Your task to perform on an android device: turn on the 24-hour format for clock Image 0: 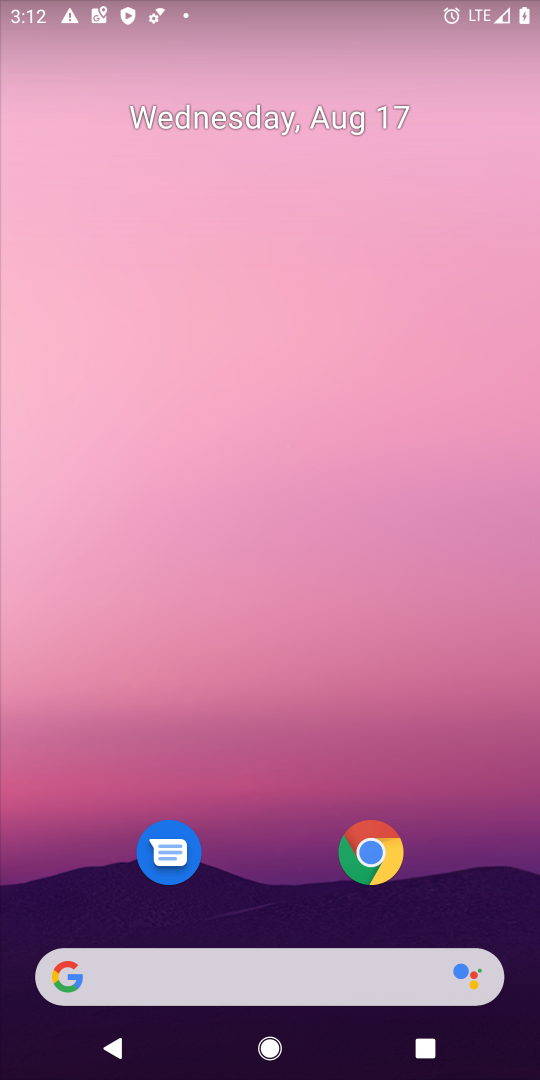
Step 0: drag from (264, 636) to (324, 21)
Your task to perform on an android device: turn on the 24-hour format for clock Image 1: 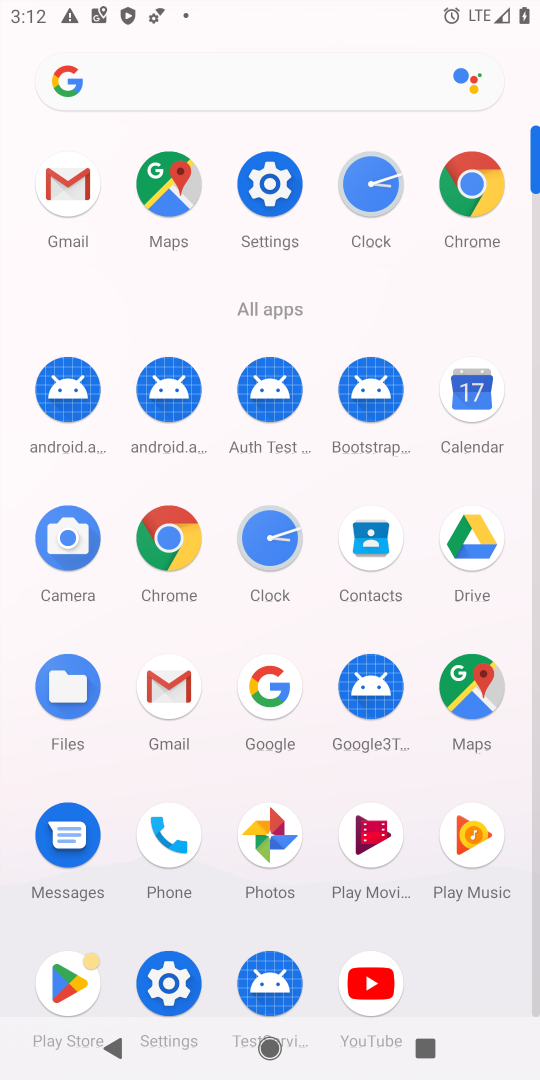
Step 1: click (264, 533)
Your task to perform on an android device: turn on the 24-hour format for clock Image 2: 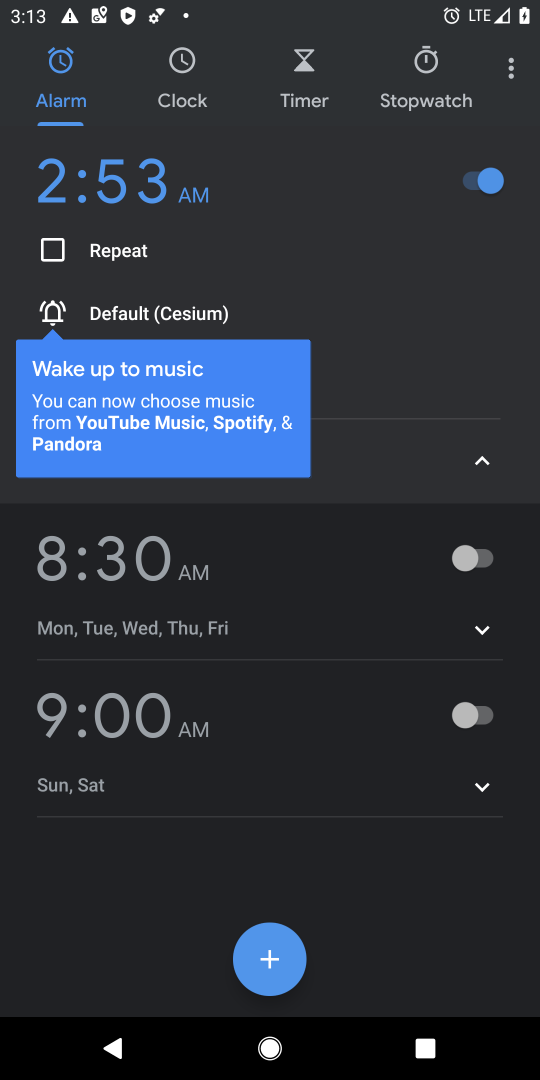
Step 2: click (514, 58)
Your task to perform on an android device: turn on the 24-hour format for clock Image 3: 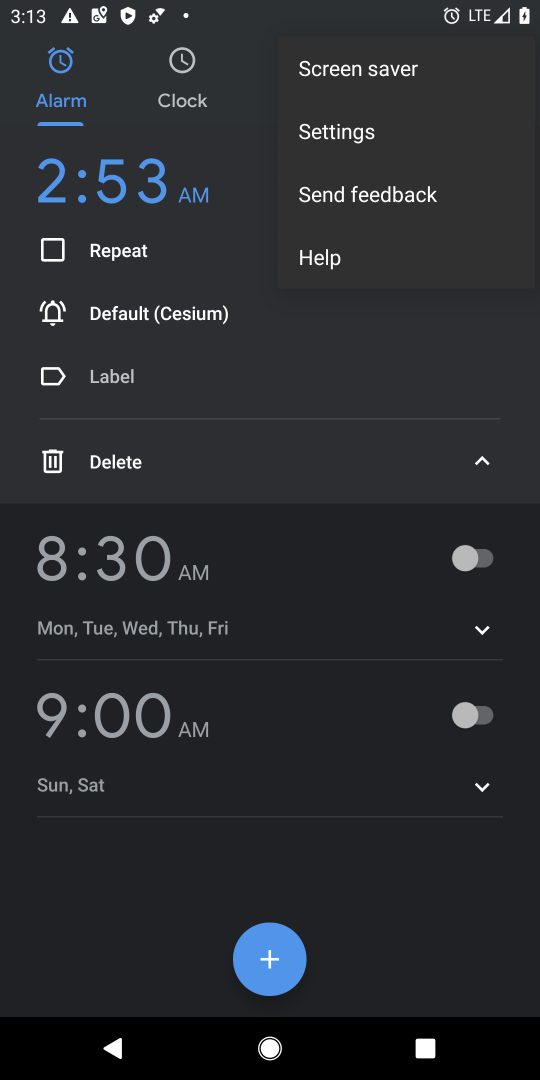
Step 3: click (361, 131)
Your task to perform on an android device: turn on the 24-hour format for clock Image 4: 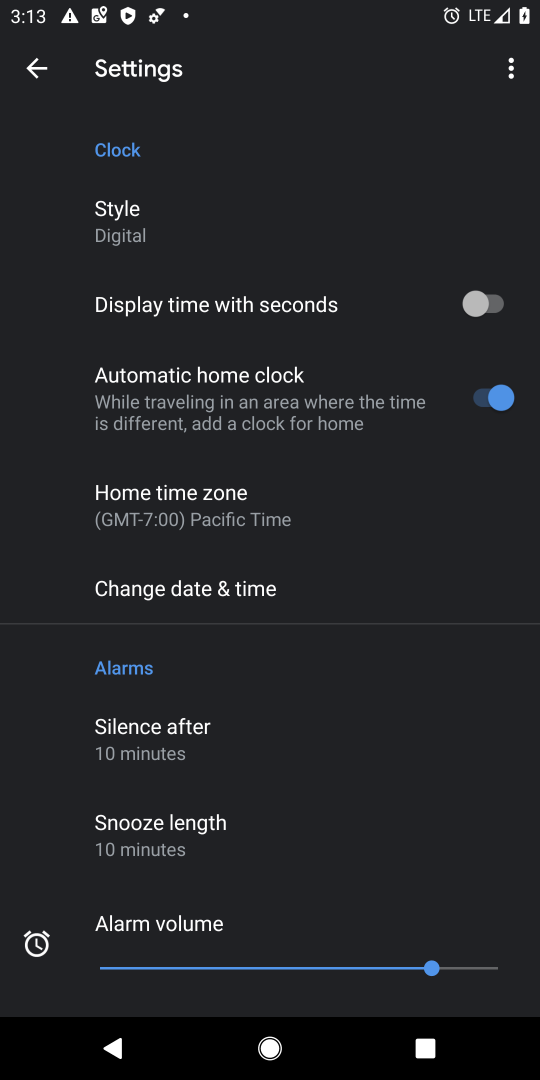
Step 4: click (243, 581)
Your task to perform on an android device: turn on the 24-hour format for clock Image 5: 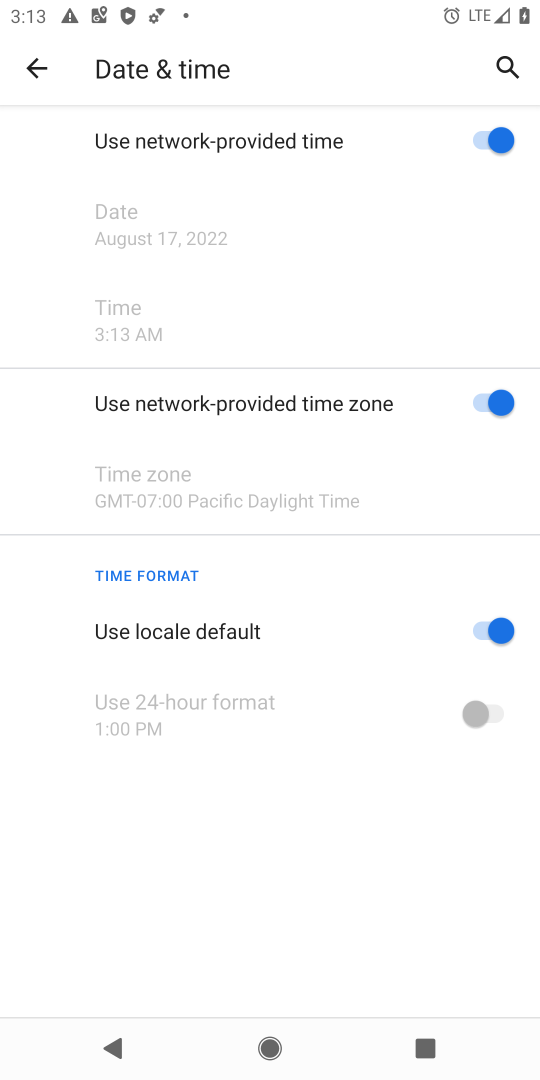
Step 5: click (493, 619)
Your task to perform on an android device: turn on the 24-hour format for clock Image 6: 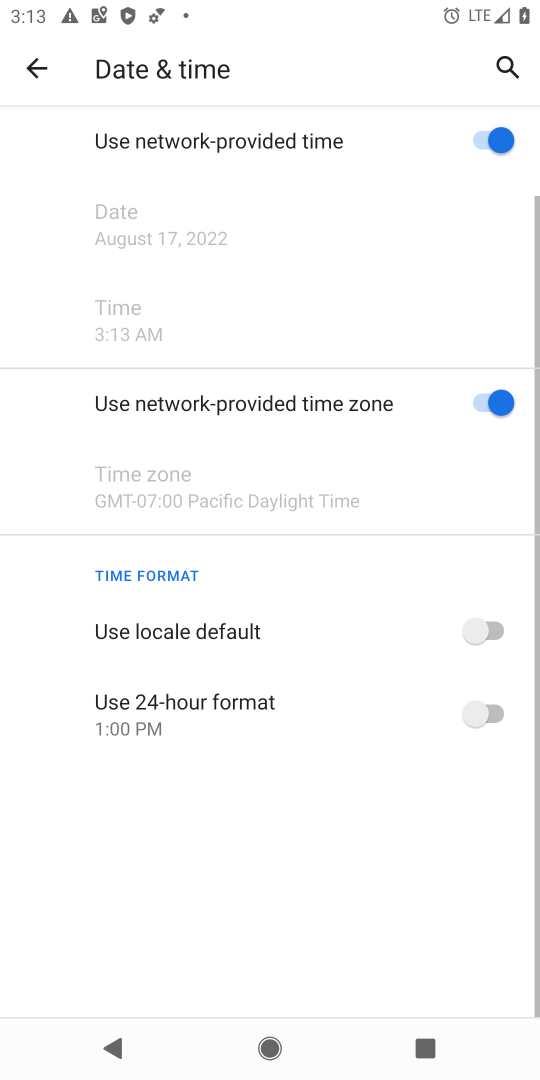
Step 6: click (486, 711)
Your task to perform on an android device: turn on the 24-hour format for clock Image 7: 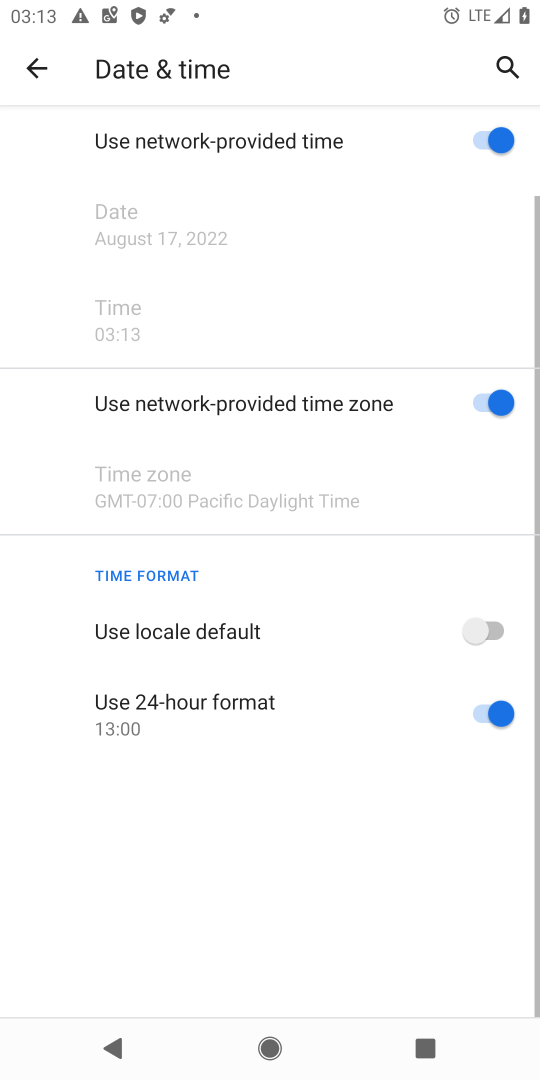
Step 7: task complete